Your task to perform on an android device: turn off smart reply in the gmail app Image 0: 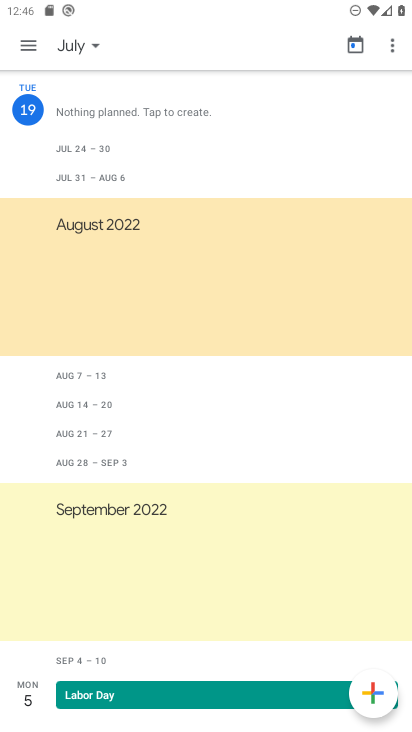
Step 0: press home button
Your task to perform on an android device: turn off smart reply in the gmail app Image 1: 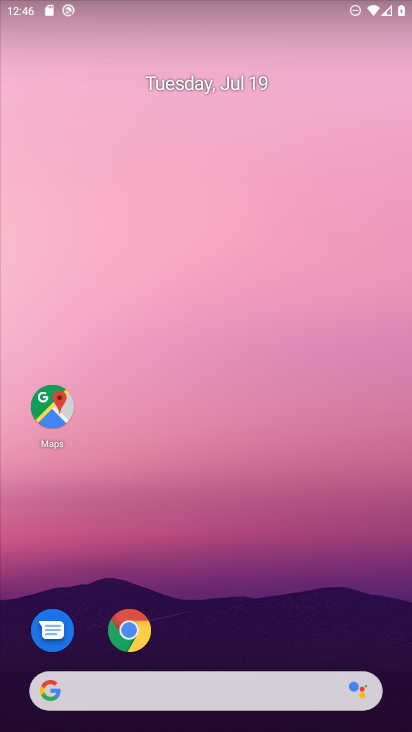
Step 1: drag from (191, 676) to (299, 22)
Your task to perform on an android device: turn off smart reply in the gmail app Image 2: 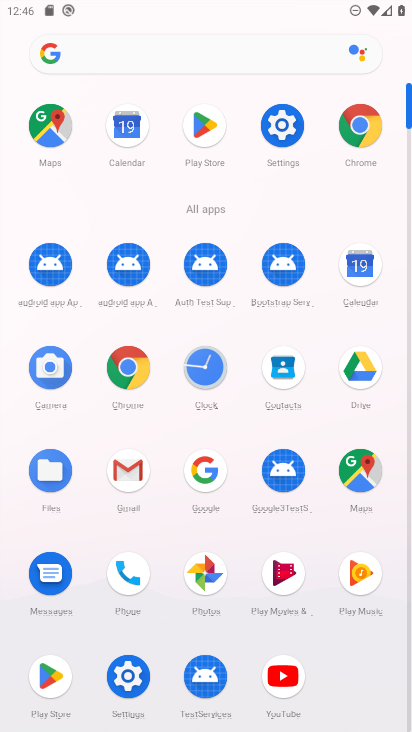
Step 2: click (127, 476)
Your task to perform on an android device: turn off smart reply in the gmail app Image 3: 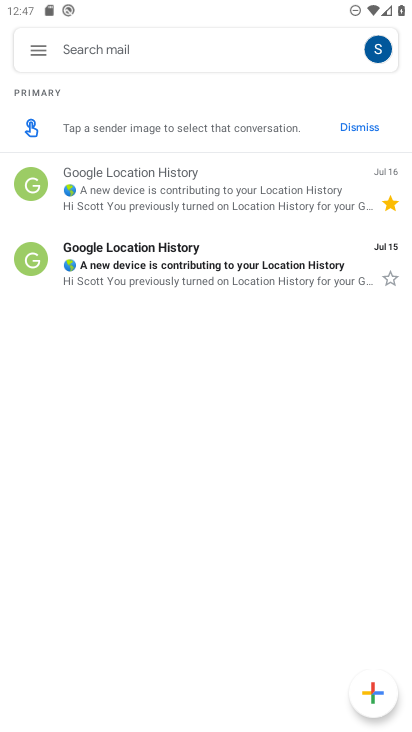
Step 3: click (35, 47)
Your task to perform on an android device: turn off smart reply in the gmail app Image 4: 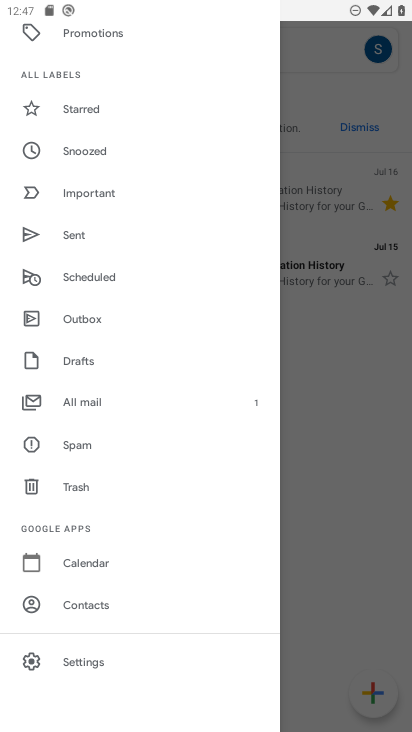
Step 4: click (86, 660)
Your task to perform on an android device: turn off smart reply in the gmail app Image 5: 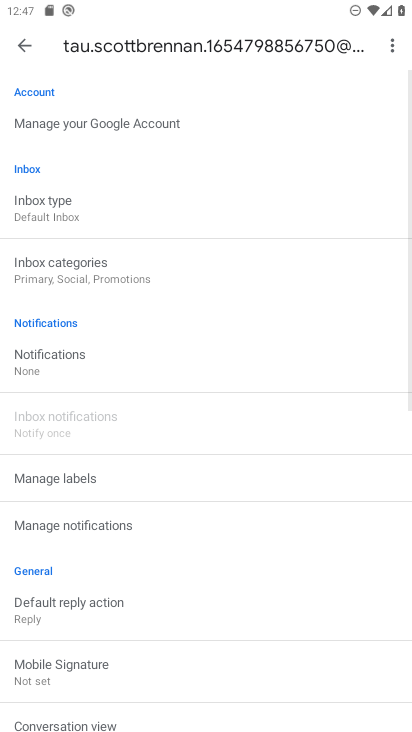
Step 5: drag from (179, 478) to (267, 153)
Your task to perform on an android device: turn off smart reply in the gmail app Image 6: 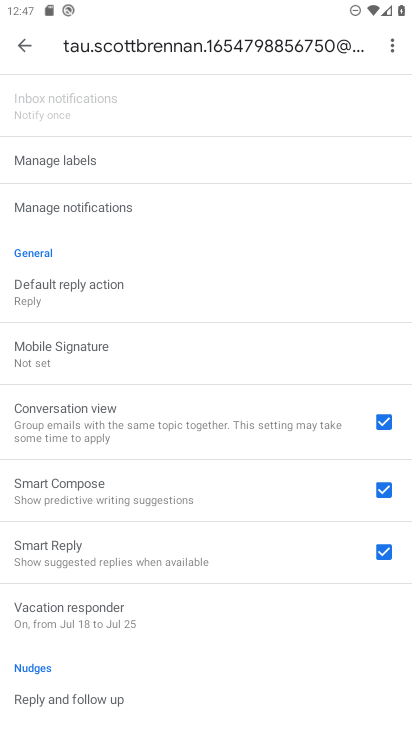
Step 6: click (385, 551)
Your task to perform on an android device: turn off smart reply in the gmail app Image 7: 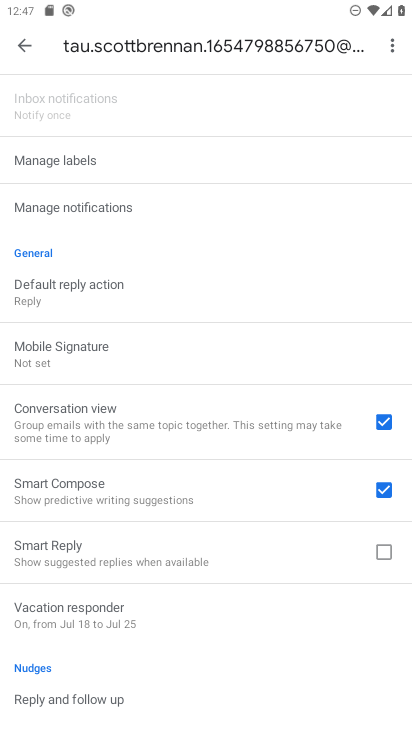
Step 7: task complete